Your task to perform on an android device: Open Youtube and go to "Your channel" Image 0: 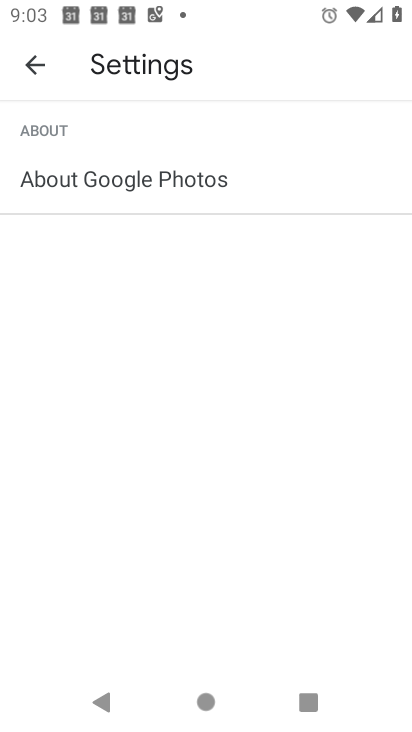
Step 0: press home button
Your task to perform on an android device: Open Youtube and go to "Your channel" Image 1: 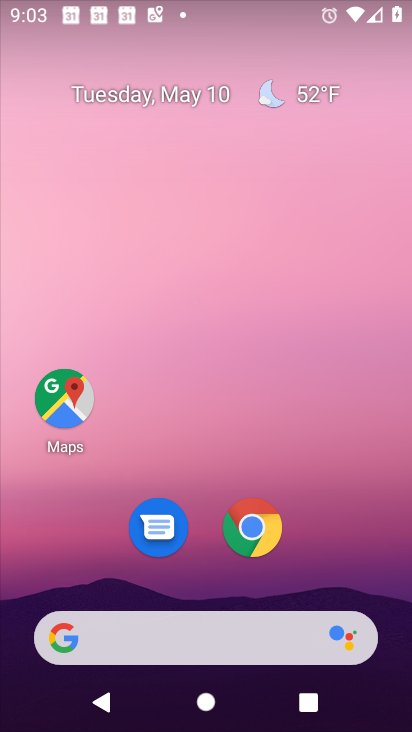
Step 1: drag from (320, 491) to (264, 263)
Your task to perform on an android device: Open Youtube and go to "Your channel" Image 2: 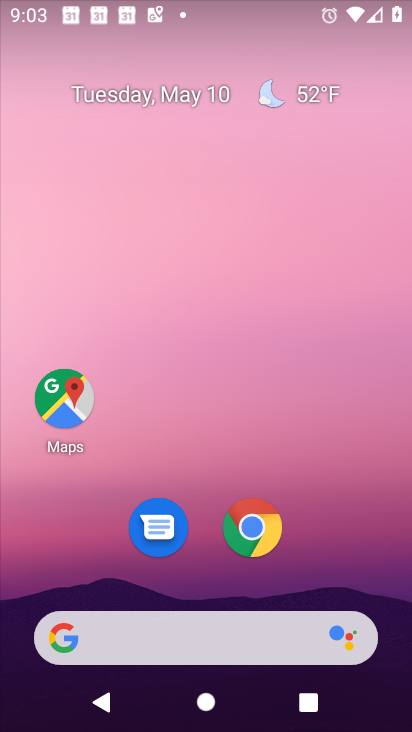
Step 2: drag from (325, 562) to (133, 106)
Your task to perform on an android device: Open Youtube and go to "Your channel" Image 3: 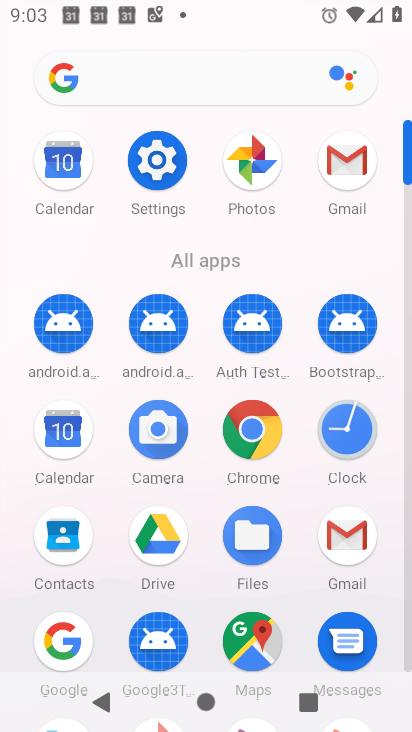
Step 3: drag from (303, 590) to (291, 236)
Your task to perform on an android device: Open Youtube and go to "Your channel" Image 4: 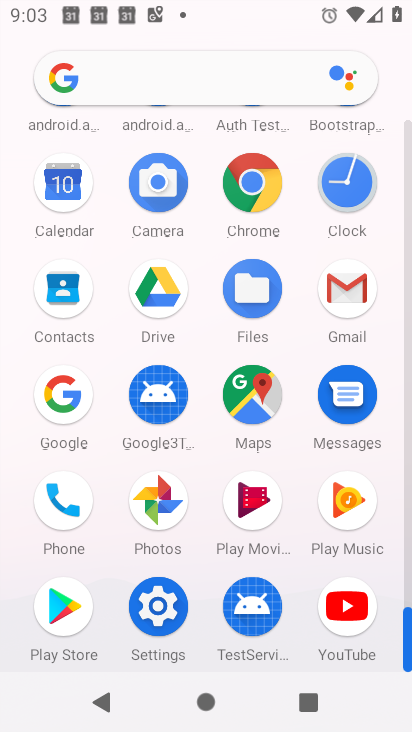
Step 4: click (345, 614)
Your task to perform on an android device: Open Youtube and go to "Your channel" Image 5: 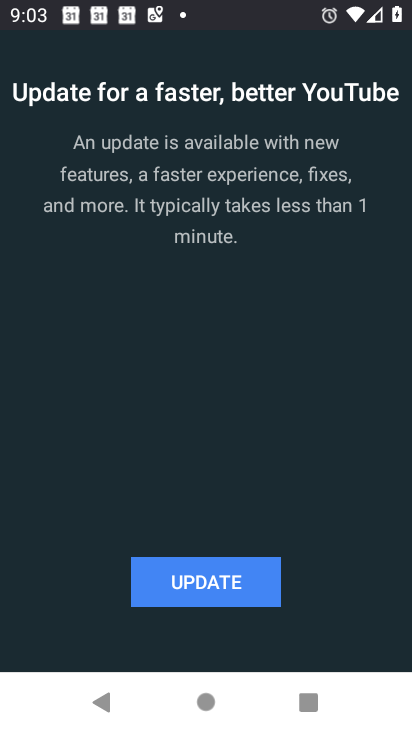
Step 5: click (217, 585)
Your task to perform on an android device: Open Youtube and go to "Your channel" Image 6: 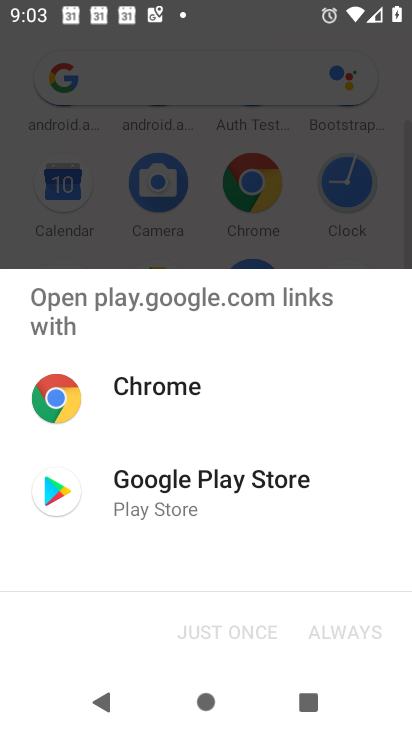
Step 6: click (180, 513)
Your task to perform on an android device: Open Youtube and go to "Your channel" Image 7: 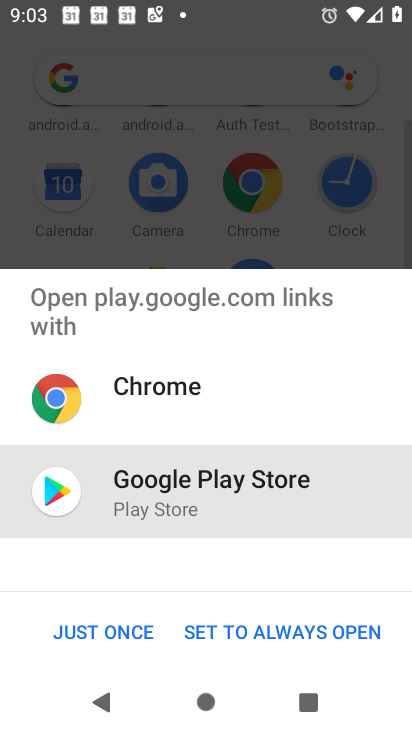
Step 7: click (113, 621)
Your task to perform on an android device: Open Youtube and go to "Your channel" Image 8: 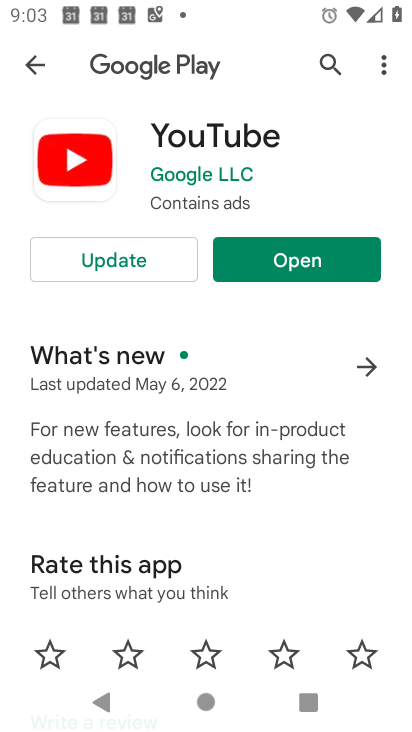
Step 8: click (149, 260)
Your task to perform on an android device: Open Youtube and go to "Your channel" Image 9: 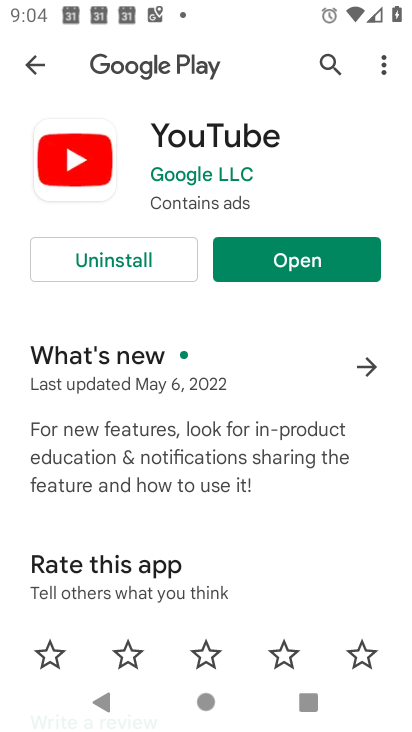
Step 9: click (268, 266)
Your task to perform on an android device: Open Youtube and go to "Your channel" Image 10: 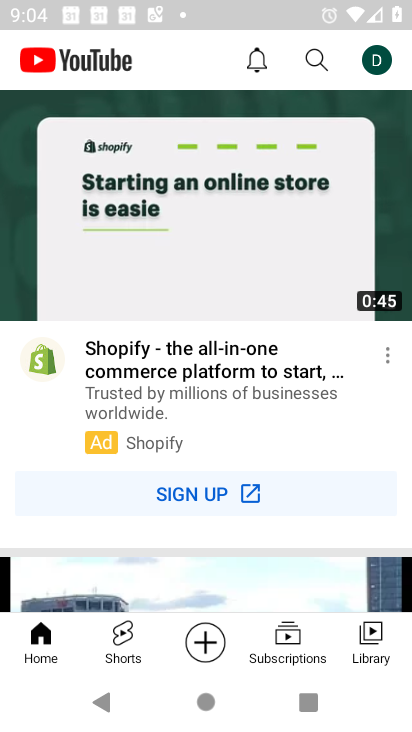
Step 10: click (372, 59)
Your task to perform on an android device: Open Youtube and go to "Your channel" Image 11: 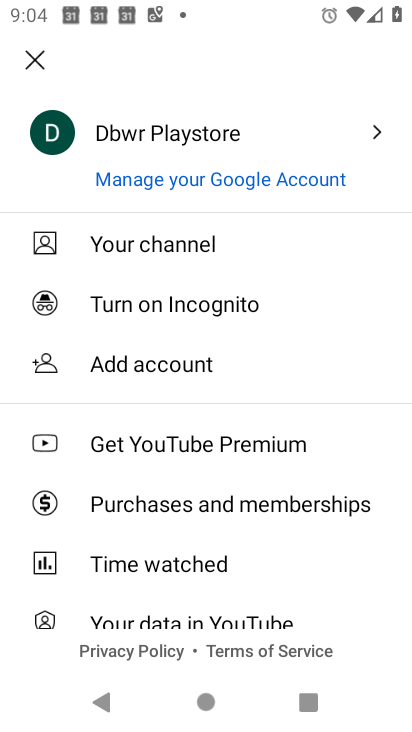
Step 11: click (123, 243)
Your task to perform on an android device: Open Youtube and go to "Your channel" Image 12: 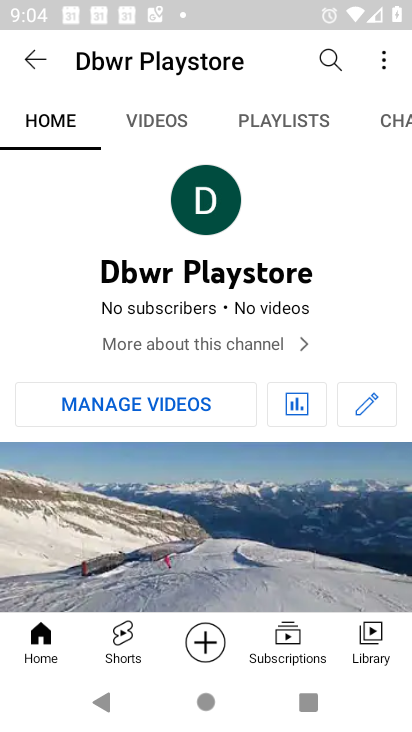
Step 12: task complete